Your task to perform on an android device: Find coffee shops on Maps Image 0: 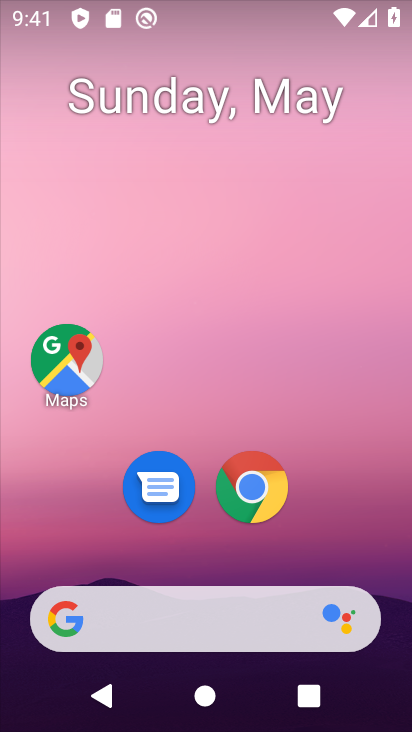
Step 0: drag from (380, 566) to (345, 179)
Your task to perform on an android device: Find coffee shops on Maps Image 1: 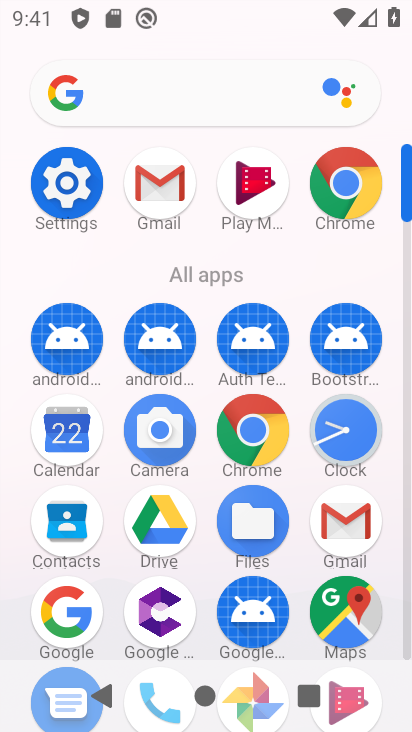
Step 1: click (362, 620)
Your task to perform on an android device: Find coffee shops on Maps Image 2: 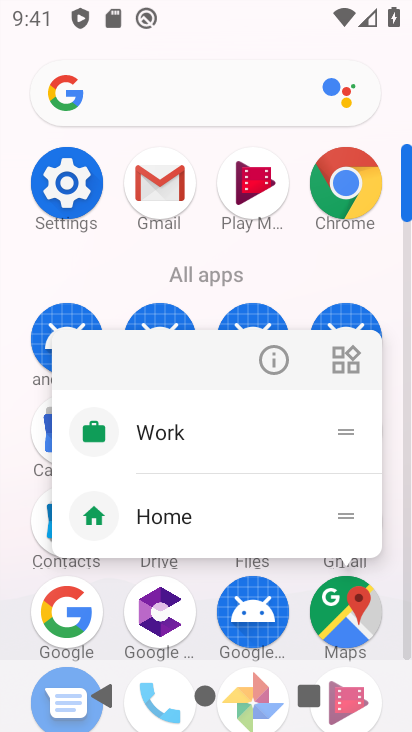
Step 2: click (341, 616)
Your task to perform on an android device: Find coffee shops on Maps Image 3: 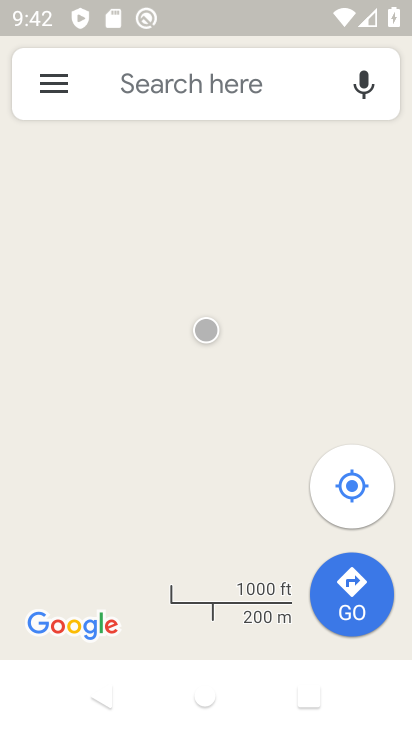
Step 3: click (237, 91)
Your task to perform on an android device: Find coffee shops on Maps Image 4: 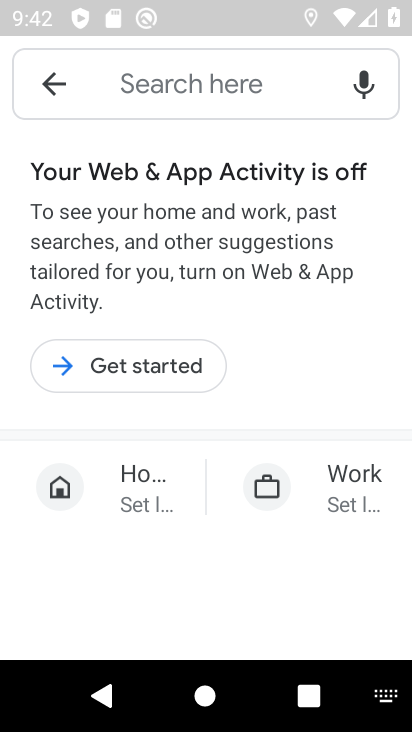
Step 4: type "coffee"
Your task to perform on an android device: Find coffee shops on Maps Image 5: 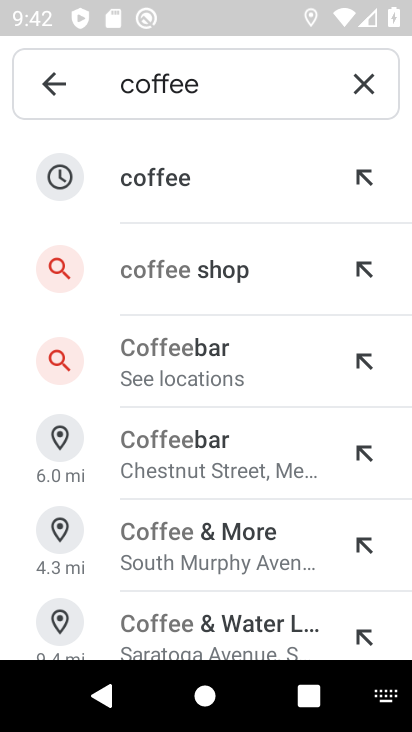
Step 5: click (208, 193)
Your task to perform on an android device: Find coffee shops on Maps Image 6: 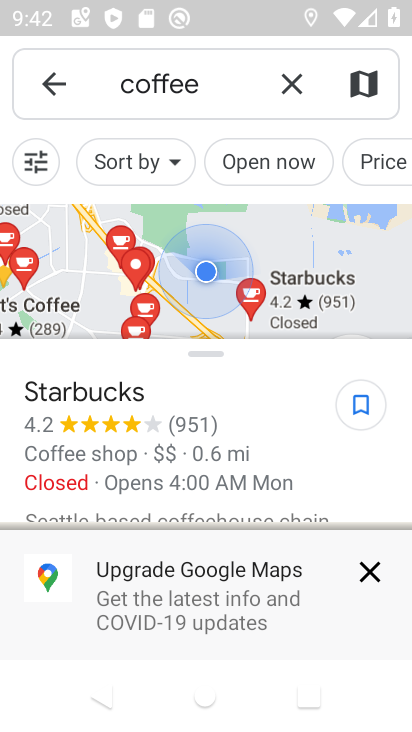
Step 6: task complete